Your task to perform on an android device: turn off airplane mode Image 0: 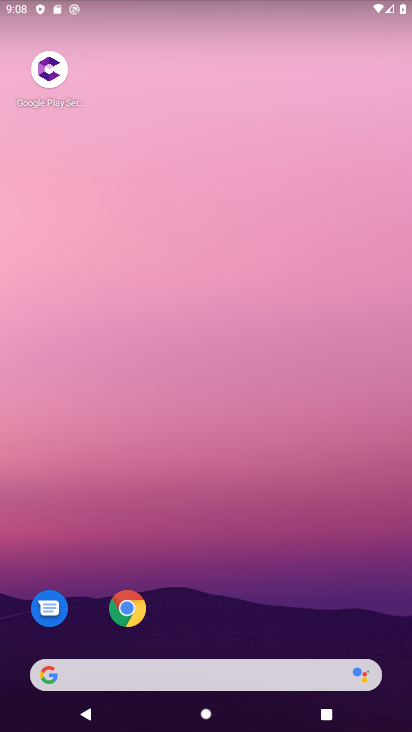
Step 0: drag from (201, 624) to (189, 21)
Your task to perform on an android device: turn off airplane mode Image 1: 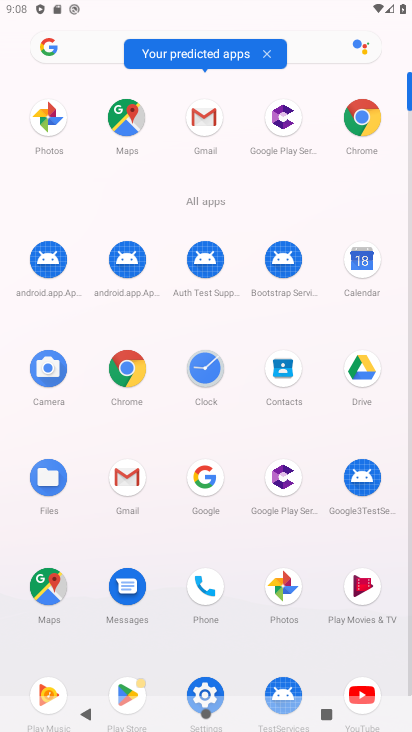
Step 1: click (210, 687)
Your task to perform on an android device: turn off airplane mode Image 2: 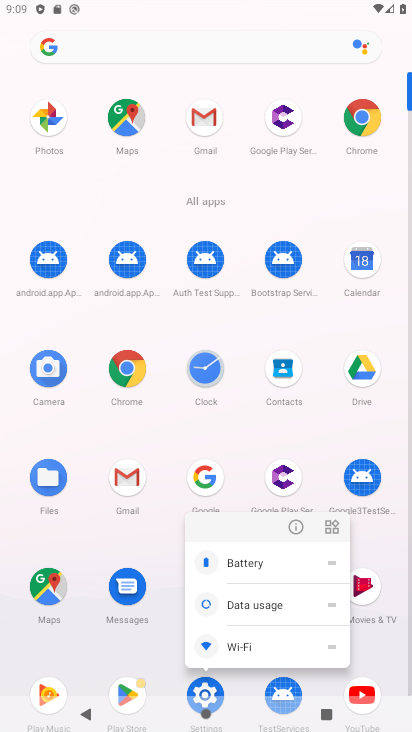
Step 2: click (209, 686)
Your task to perform on an android device: turn off airplane mode Image 3: 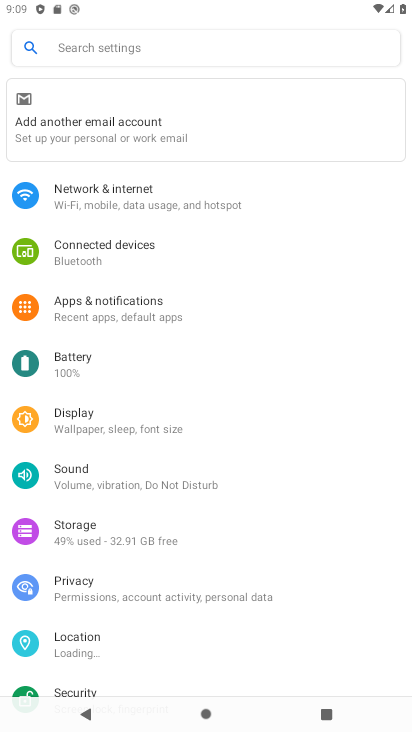
Step 3: click (122, 205)
Your task to perform on an android device: turn off airplane mode Image 4: 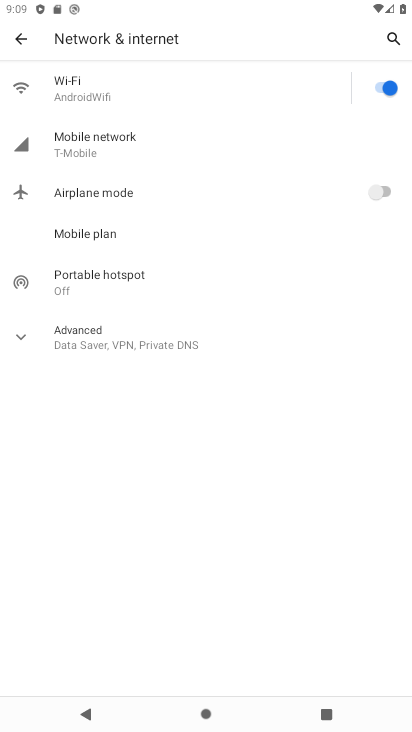
Step 4: task complete